Your task to perform on an android device: What's the news in Sri Lanka? Image 0: 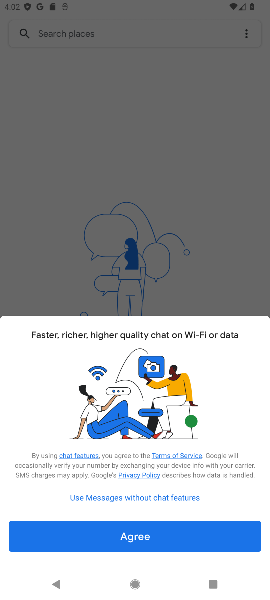
Step 0: press home button
Your task to perform on an android device: What's the news in Sri Lanka? Image 1: 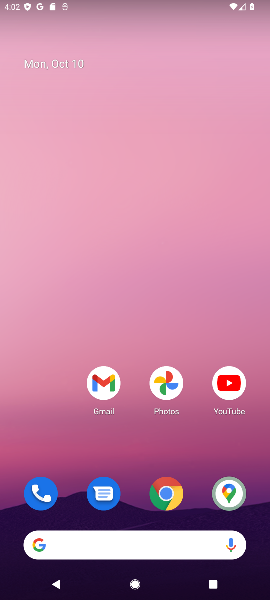
Step 1: click (162, 539)
Your task to perform on an android device: What's the news in Sri Lanka? Image 2: 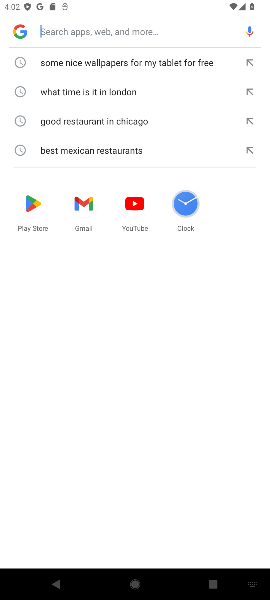
Step 2: type "the news in Sri Lanka?"
Your task to perform on an android device: What's the news in Sri Lanka? Image 3: 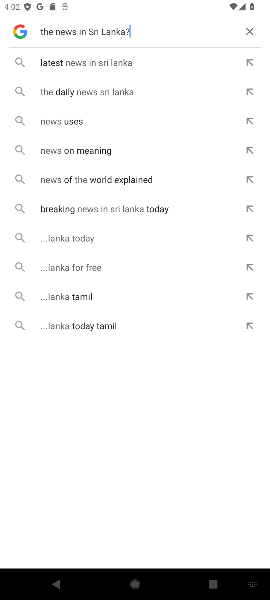
Step 3: type "the news in Sri Lanka?"
Your task to perform on an android device: What's the news in Sri Lanka? Image 4: 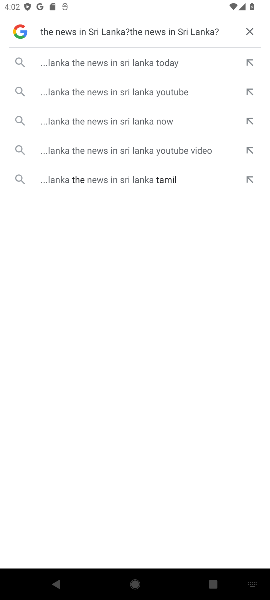
Step 4: click (163, 67)
Your task to perform on an android device: What's the news in Sri Lanka? Image 5: 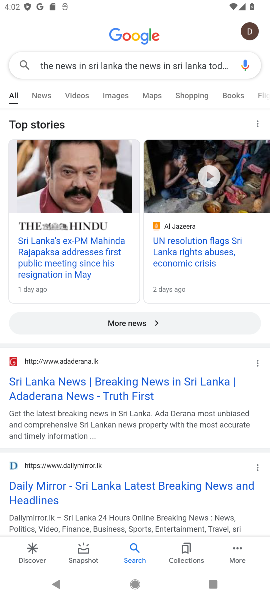
Step 5: task complete